Your task to perform on an android device: clear history in the chrome app Image 0: 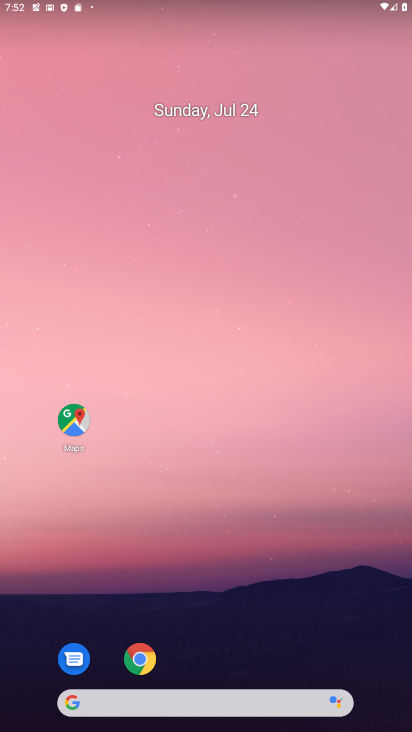
Step 0: click (144, 655)
Your task to perform on an android device: clear history in the chrome app Image 1: 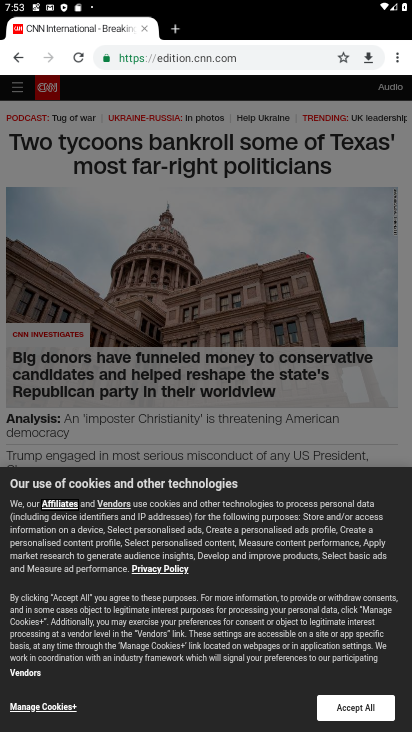
Step 1: click (400, 57)
Your task to perform on an android device: clear history in the chrome app Image 2: 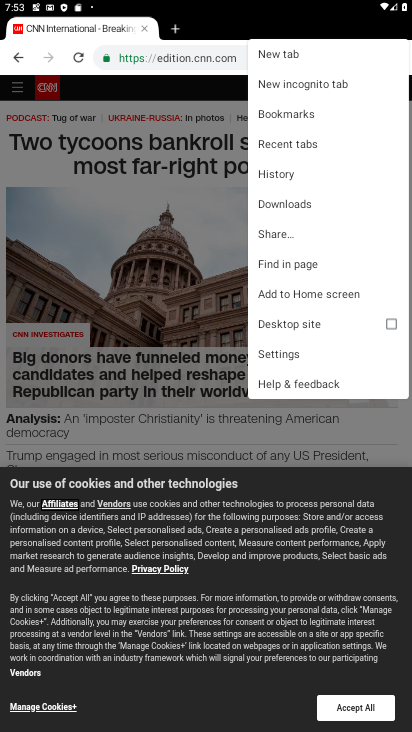
Step 2: click (302, 356)
Your task to perform on an android device: clear history in the chrome app Image 3: 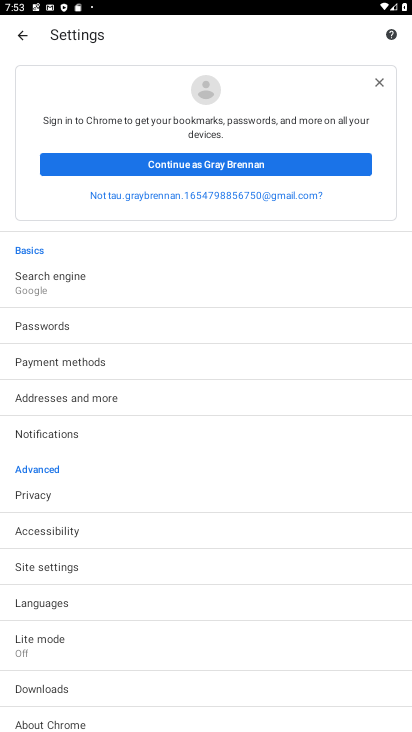
Step 3: click (49, 500)
Your task to perform on an android device: clear history in the chrome app Image 4: 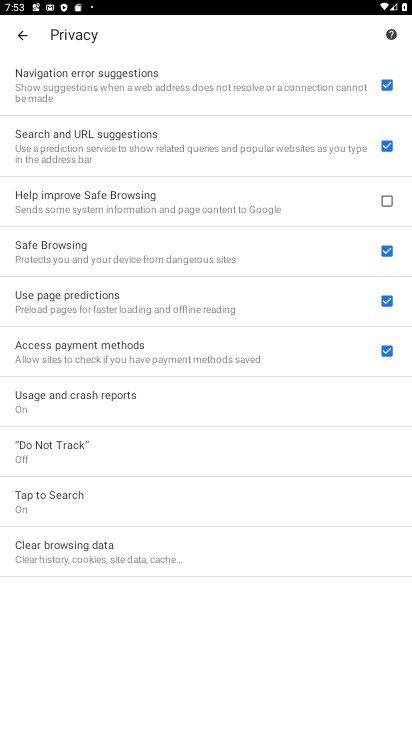
Step 4: click (73, 553)
Your task to perform on an android device: clear history in the chrome app Image 5: 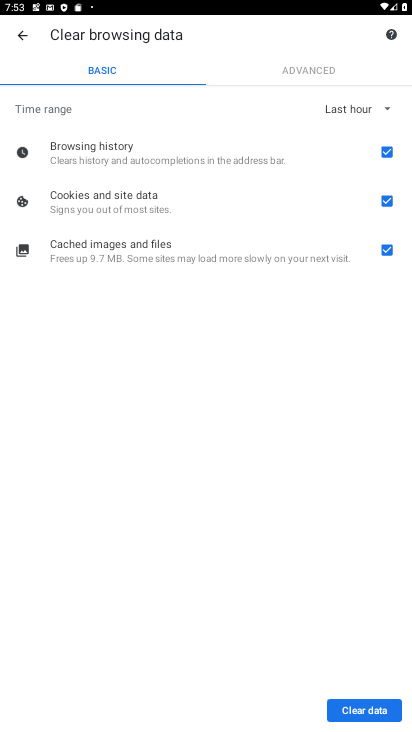
Step 5: click (390, 198)
Your task to perform on an android device: clear history in the chrome app Image 6: 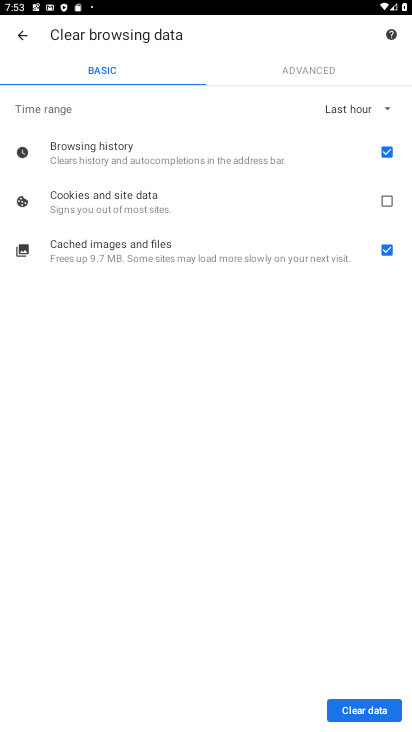
Step 6: click (390, 253)
Your task to perform on an android device: clear history in the chrome app Image 7: 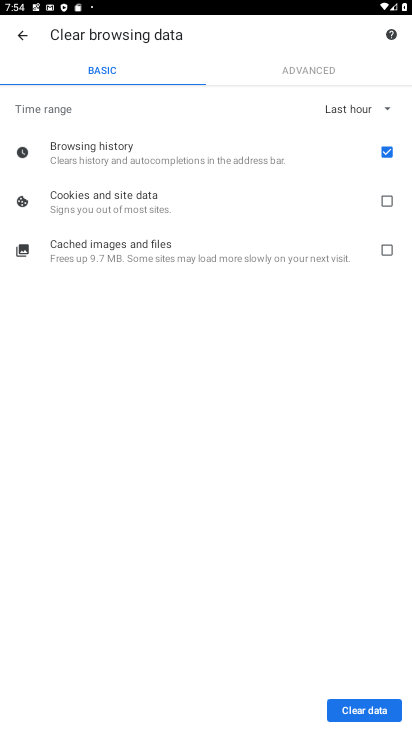
Step 7: click (369, 715)
Your task to perform on an android device: clear history in the chrome app Image 8: 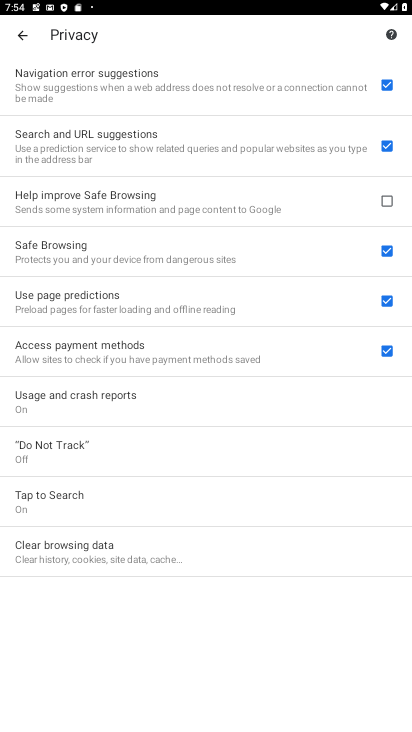
Step 8: task complete